Your task to perform on an android device: Do I have any events tomorrow? Image 0: 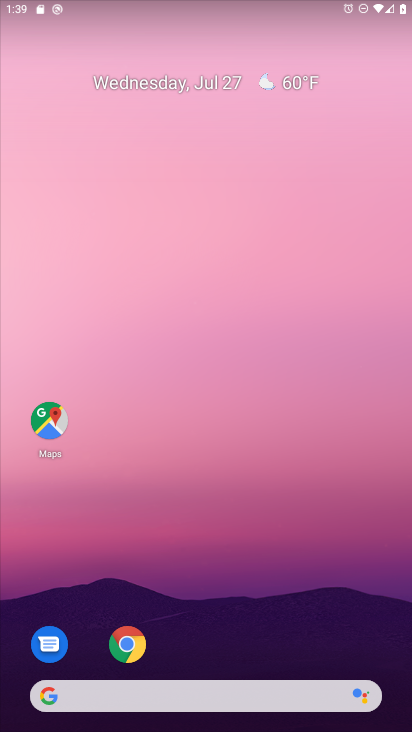
Step 0: drag from (211, 624) to (244, 178)
Your task to perform on an android device: Do I have any events tomorrow? Image 1: 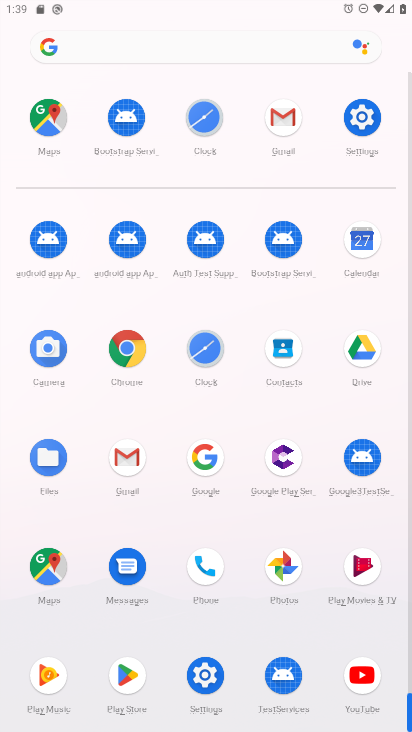
Step 1: click (355, 237)
Your task to perform on an android device: Do I have any events tomorrow? Image 2: 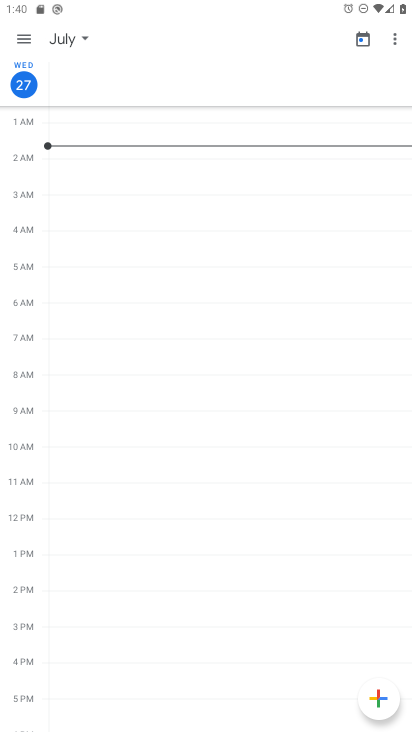
Step 2: click (65, 37)
Your task to perform on an android device: Do I have any events tomorrow? Image 3: 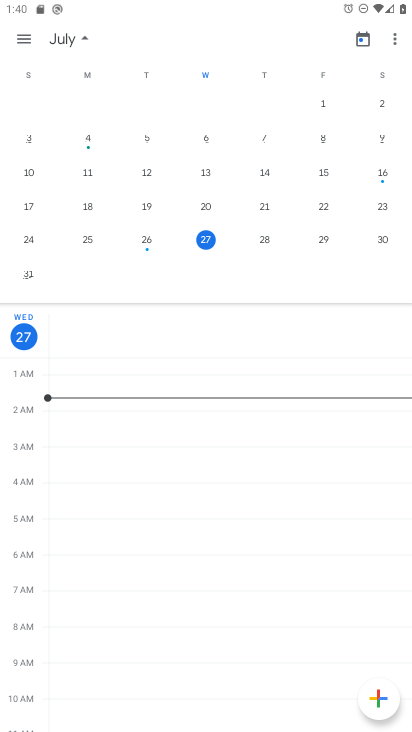
Step 3: click (267, 237)
Your task to perform on an android device: Do I have any events tomorrow? Image 4: 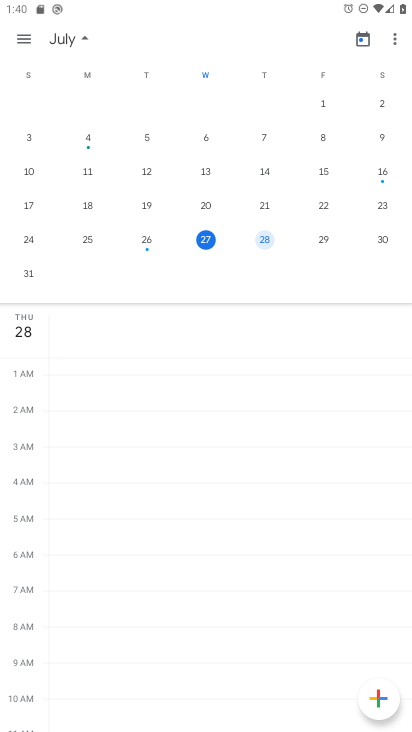
Step 4: drag from (237, 475) to (235, 243)
Your task to perform on an android device: Do I have any events tomorrow? Image 5: 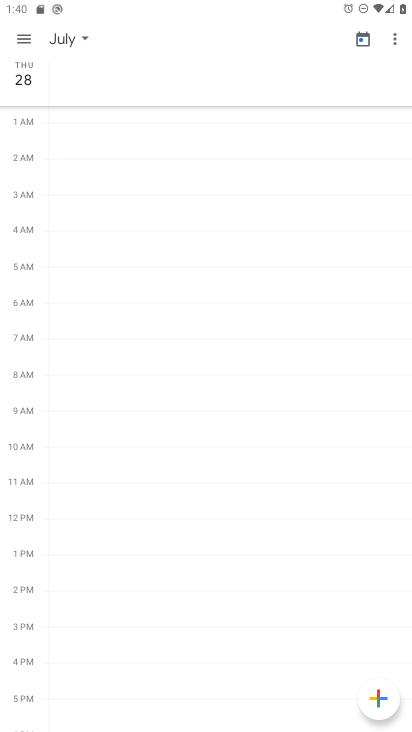
Step 5: click (73, 32)
Your task to perform on an android device: Do I have any events tomorrow? Image 6: 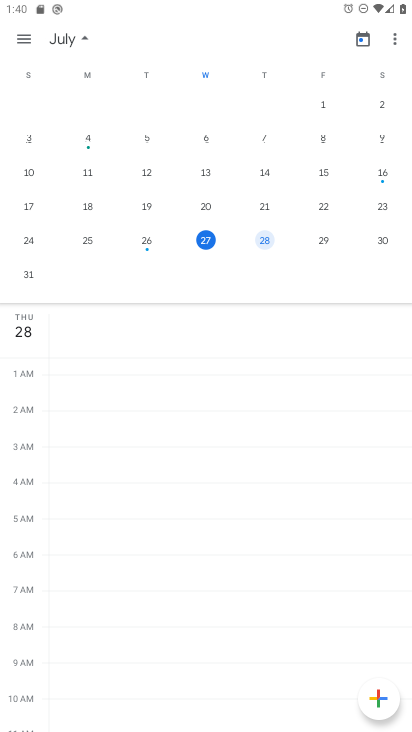
Step 6: click (265, 239)
Your task to perform on an android device: Do I have any events tomorrow? Image 7: 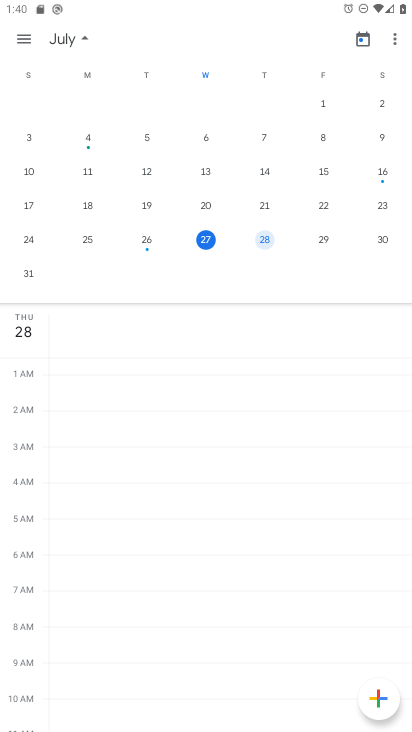
Step 7: task complete